Your task to perform on an android device: Go to CNN.com Image 0: 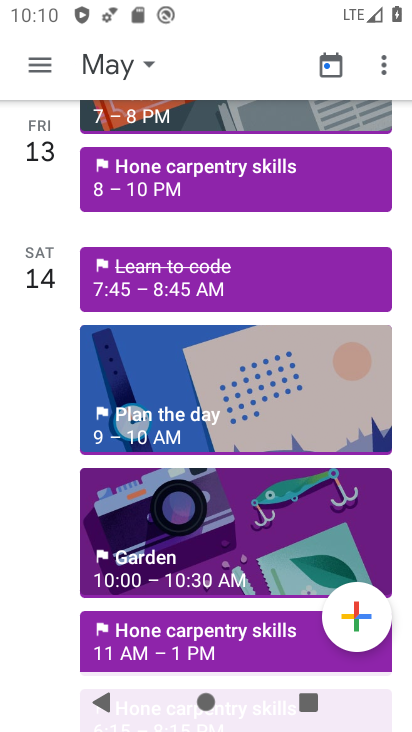
Step 0: press home button
Your task to perform on an android device: Go to CNN.com Image 1: 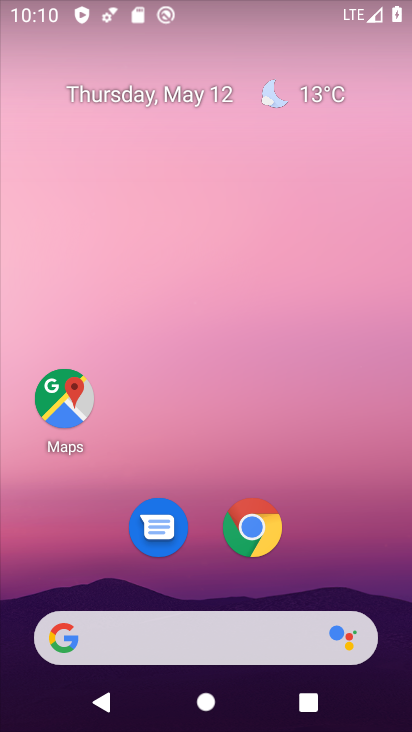
Step 1: click (247, 523)
Your task to perform on an android device: Go to CNN.com Image 2: 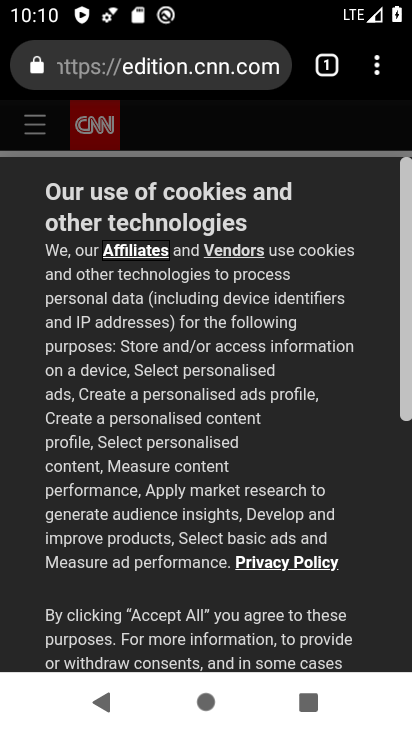
Step 2: click (208, 51)
Your task to perform on an android device: Go to CNN.com Image 3: 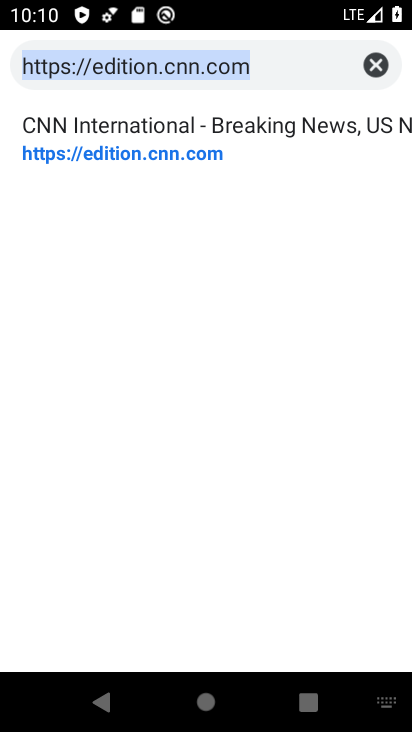
Step 3: type "CNN.com"
Your task to perform on an android device: Go to CNN.com Image 4: 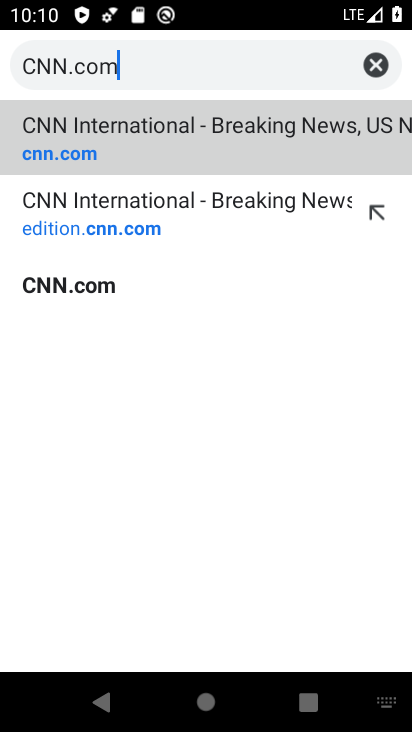
Step 4: type ""
Your task to perform on an android device: Go to CNN.com Image 5: 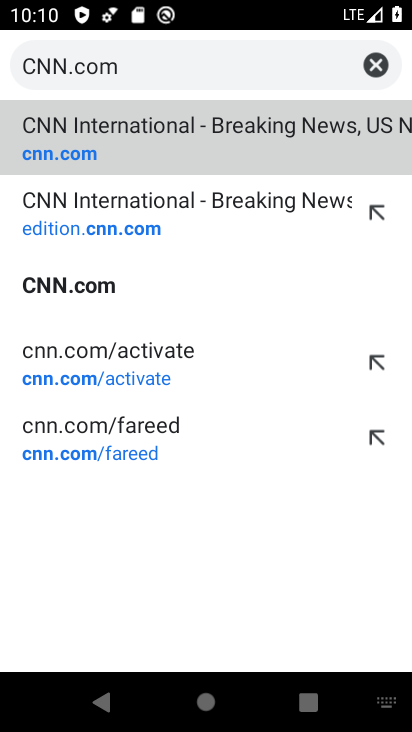
Step 5: click (106, 284)
Your task to perform on an android device: Go to CNN.com Image 6: 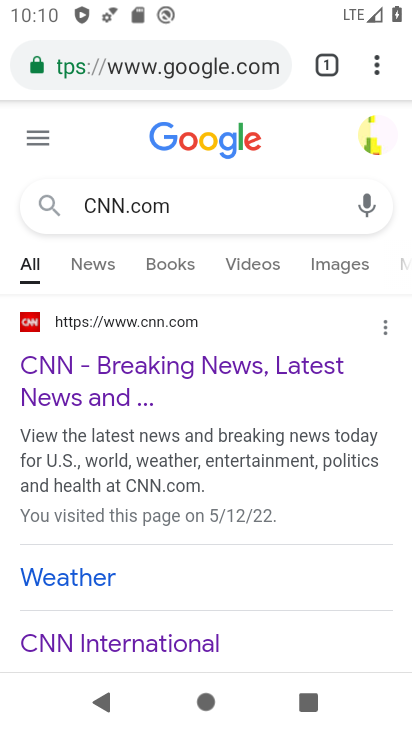
Step 6: click (86, 354)
Your task to perform on an android device: Go to CNN.com Image 7: 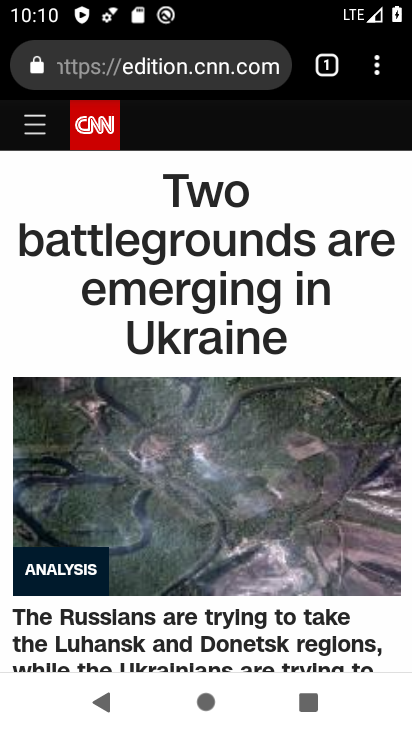
Step 7: task complete